Your task to perform on an android device: turn off wifi Image 0: 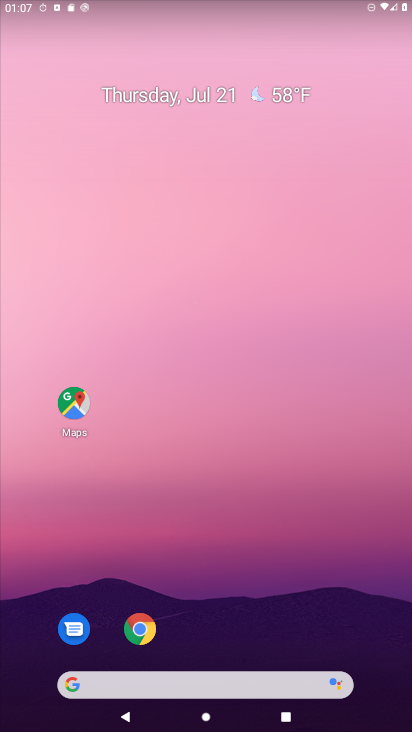
Step 0: drag from (213, 626) to (209, 142)
Your task to perform on an android device: turn off wifi Image 1: 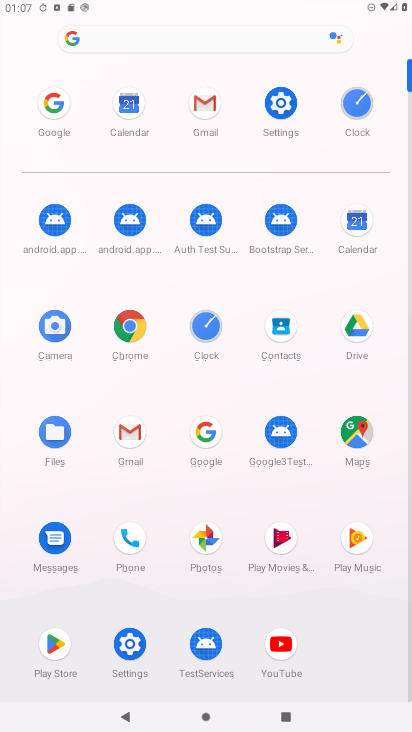
Step 1: click (272, 111)
Your task to perform on an android device: turn off wifi Image 2: 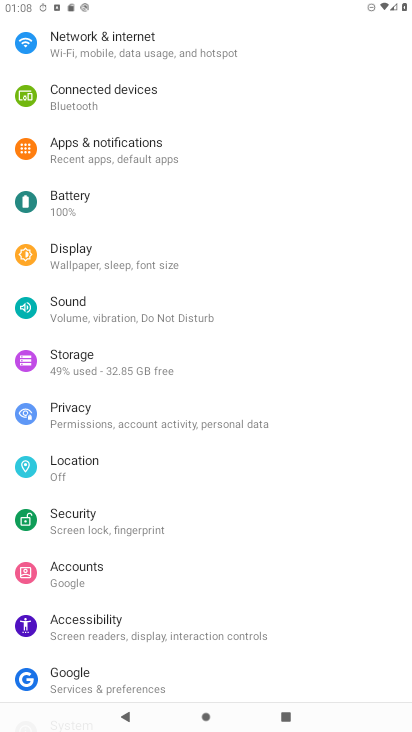
Step 2: drag from (144, 164) to (144, 499)
Your task to perform on an android device: turn off wifi Image 3: 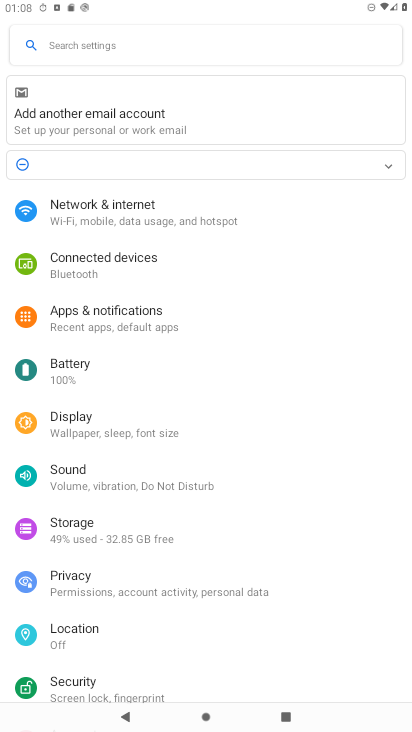
Step 3: click (116, 205)
Your task to perform on an android device: turn off wifi Image 4: 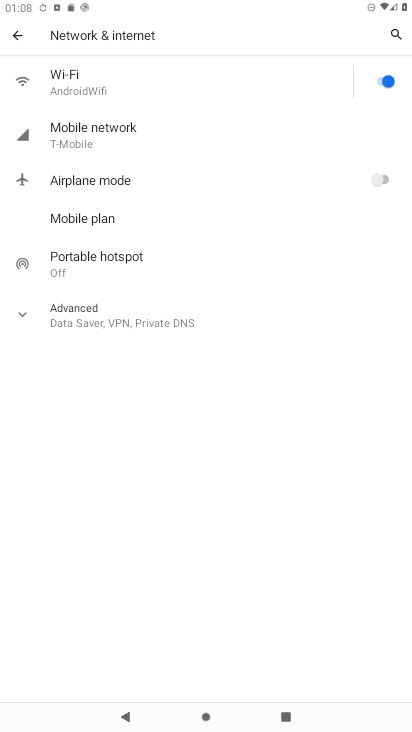
Step 4: click (378, 85)
Your task to perform on an android device: turn off wifi Image 5: 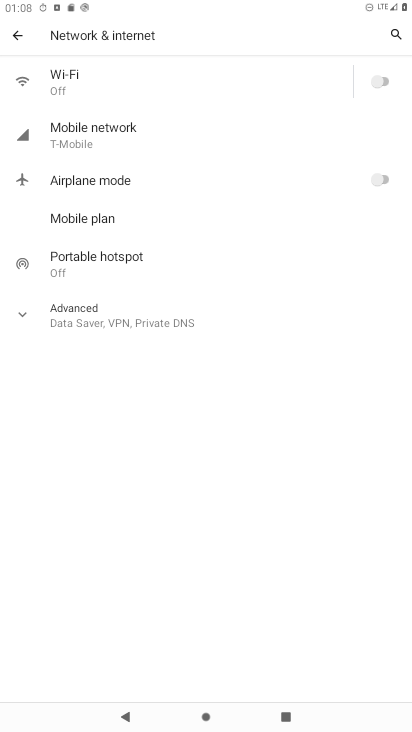
Step 5: task complete